Your task to perform on an android device: Go to location settings Image 0: 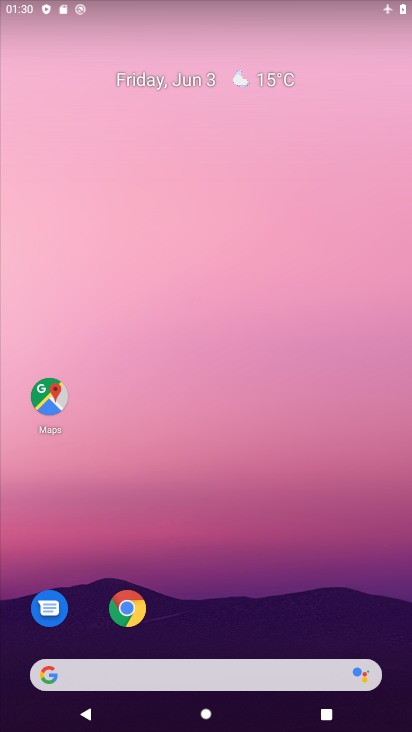
Step 0: drag from (294, 588) to (291, 182)
Your task to perform on an android device: Go to location settings Image 1: 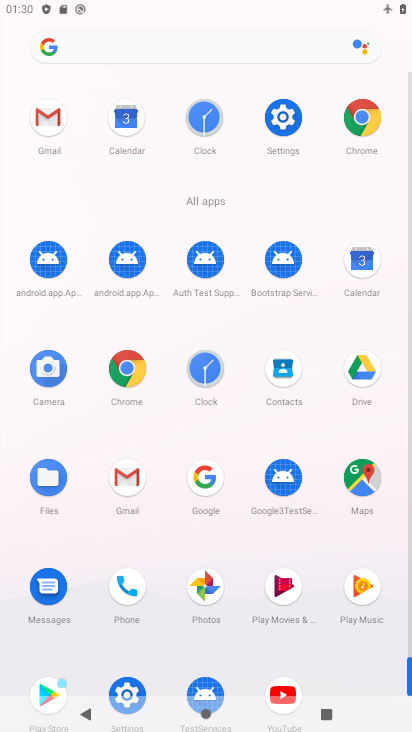
Step 1: click (284, 128)
Your task to perform on an android device: Go to location settings Image 2: 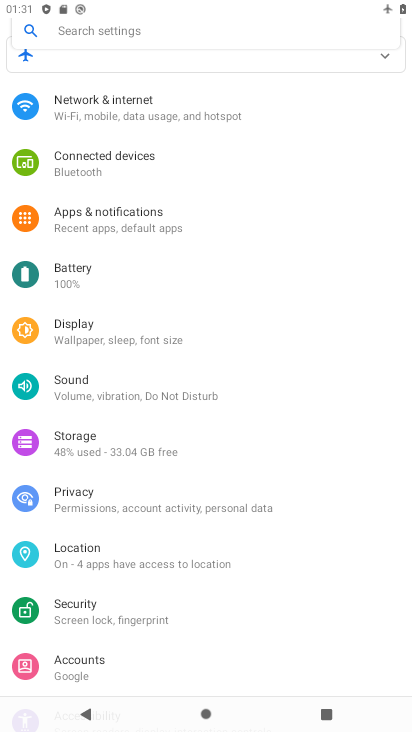
Step 2: drag from (194, 478) to (253, 186)
Your task to perform on an android device: Go to location settings Image 3: 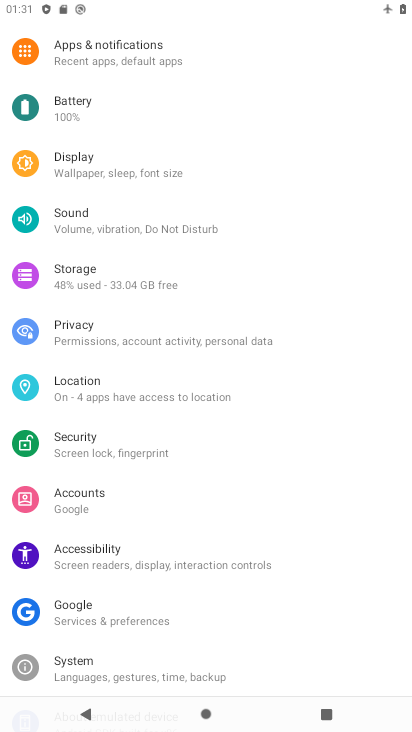
Step 3: click (82, 394)
Your task to perform on an android device: Go to location settings Image 4: 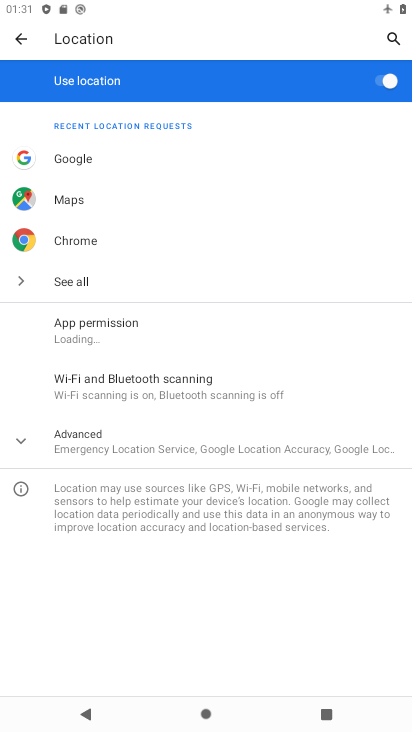
Step 4: click (134, 443)
Your task to perform on an android device: Go to location settings Image 5: 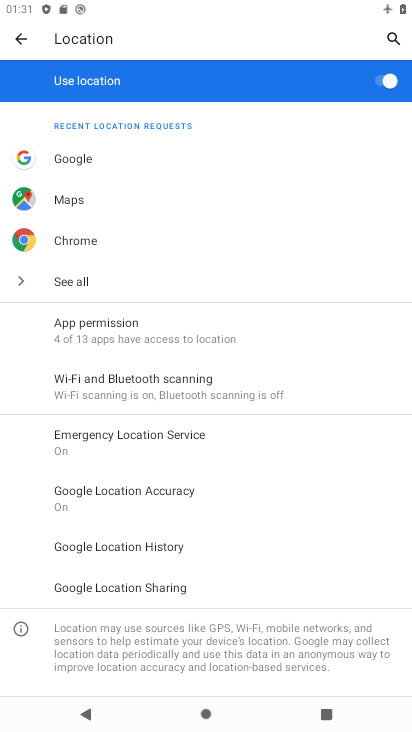
Step 5: task complete